Your task to perform on an android device: Turn off the flashlight Image 0: 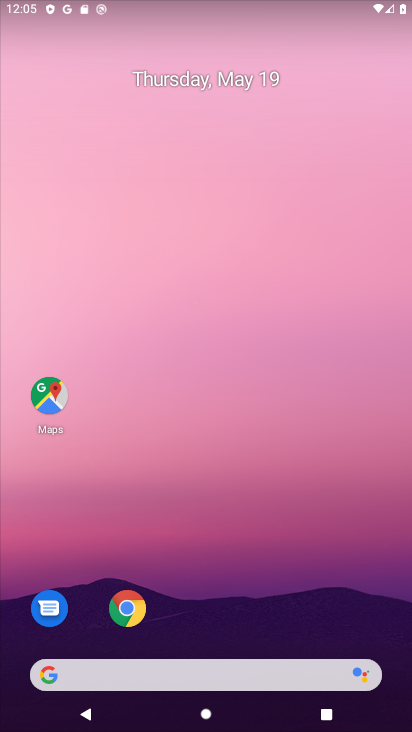
Step 0: drag from (255, 589) to (256, 122)
Your task to perform on an android device: Turn off the flashlight Image 1: 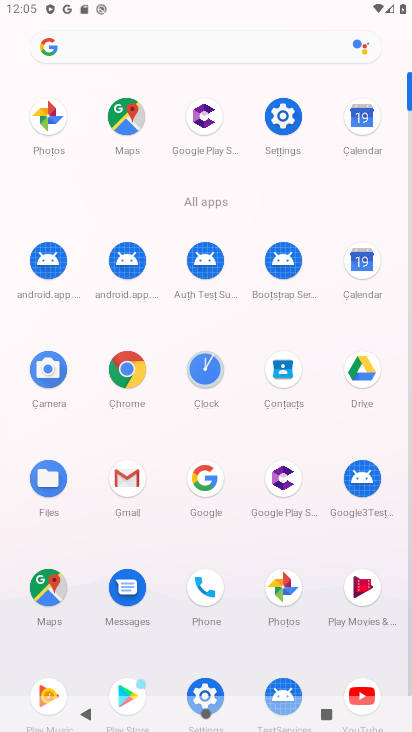
Step 1: click (290, 111)
Your task to perform on an android device: Turn off the flashlight Image 2: 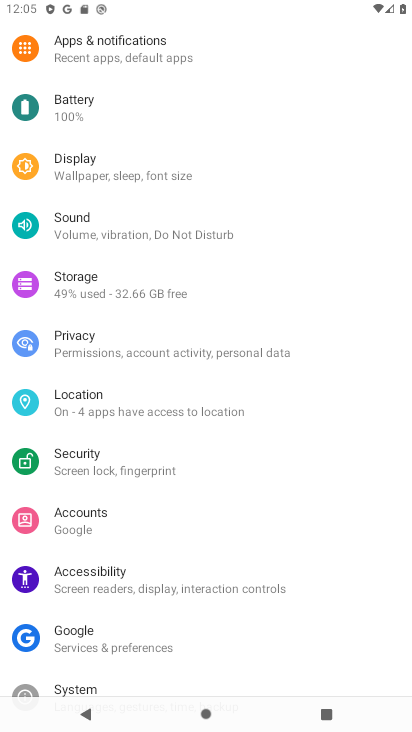
Step 2: task complete